Your task to perform on an android device: Open the phone app and click the voicemail tab. Image 0: 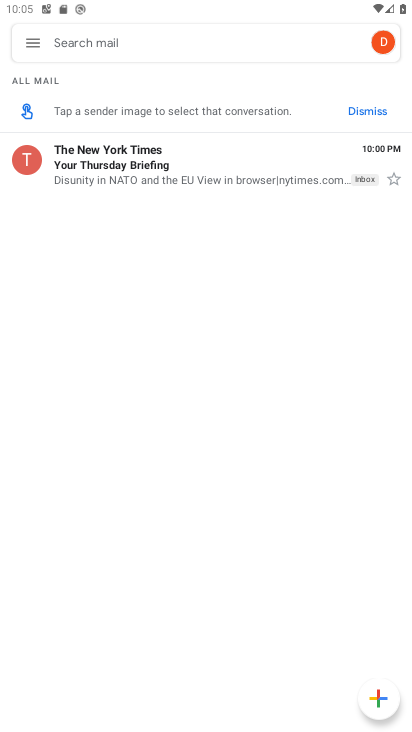
Step 0: press back button
Your task to perform on an android device: Open the phone app and click the voicemail tab. Image 1: 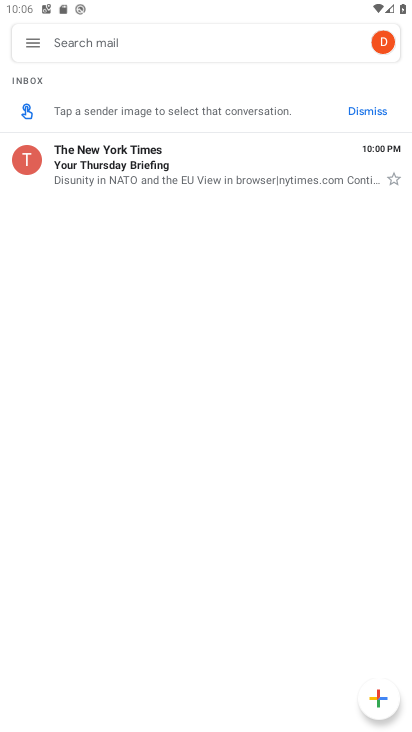
Step 1: press back button
Your task to perform on an android device: Open the phone app and click the voicemail tab. Image 2: 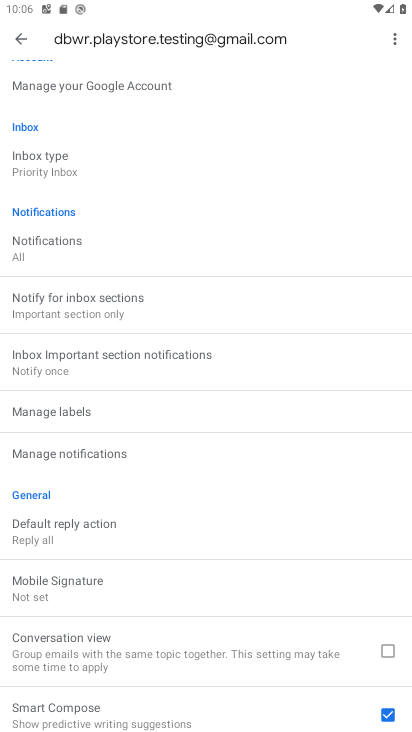
Step 2: press back button
Your task to perform on an android device: Open the phone app and click the voicemail tab. Image 3: 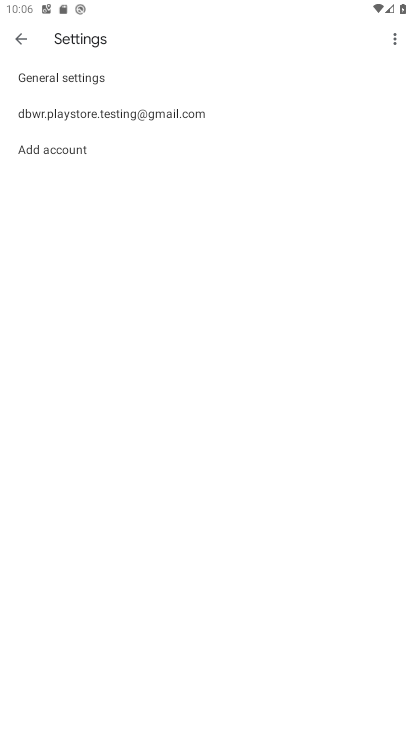
Step 3: press back button
Your task to perform on an android device: Open the phone app and click the voicemail tab. Image 4: 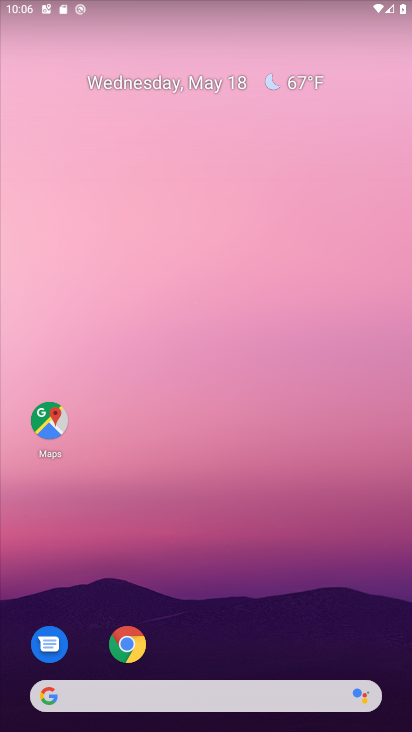
Step 4: drag from (231, 611) to (292, 66)
Your task to perform on an android device: Open the phone app and click the voicemail tab. Image 5: 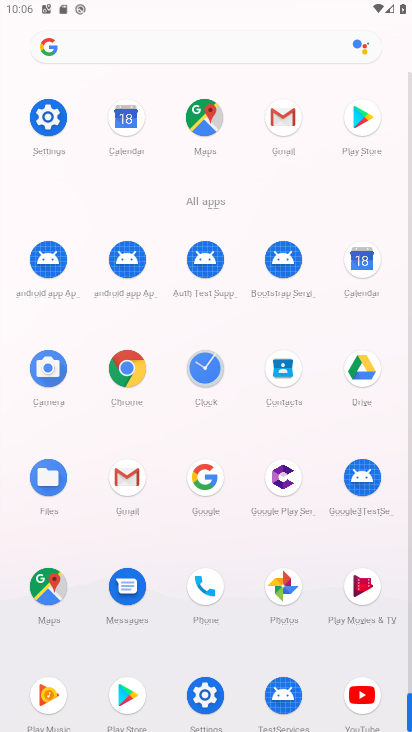
Step 5: drag from (230, 490) to (238, 295)
Your task to perform on an android device: Open the phone app and click the voicemail tab. Image 6: 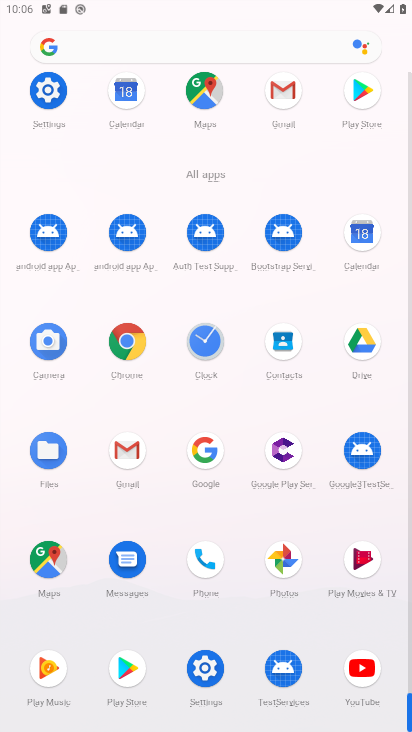
Step 6: click (202, 561)
Your task to perform on an android device: Open the phone app and click the voicemail tab. Image 7: 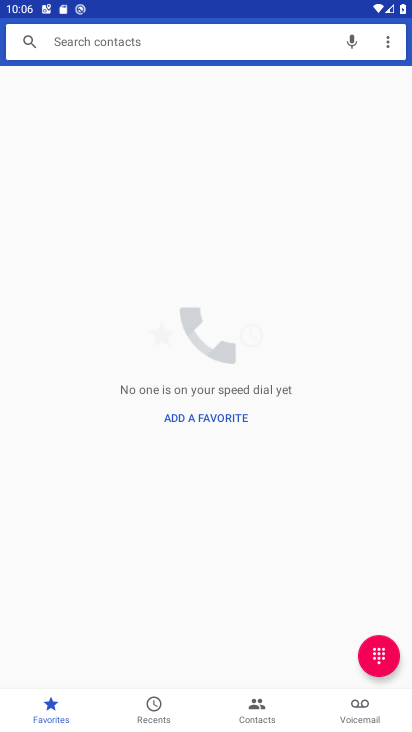
Step 7: click (361, 702)
Your task to perform on an android device: Open the phone app and click the voicemail tab. Image 8: 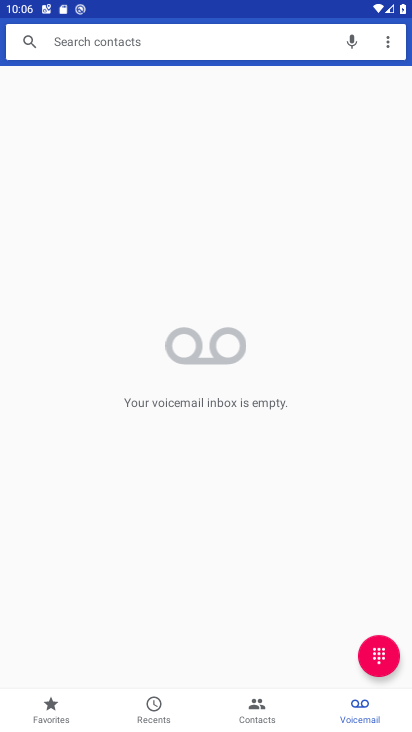
Step 8: task complete